Your task to perform on an android device: Empty the shopping cart on costco.com. Add usb-c to usb-a to the cart on costco.com, then select checkout. Image 0: 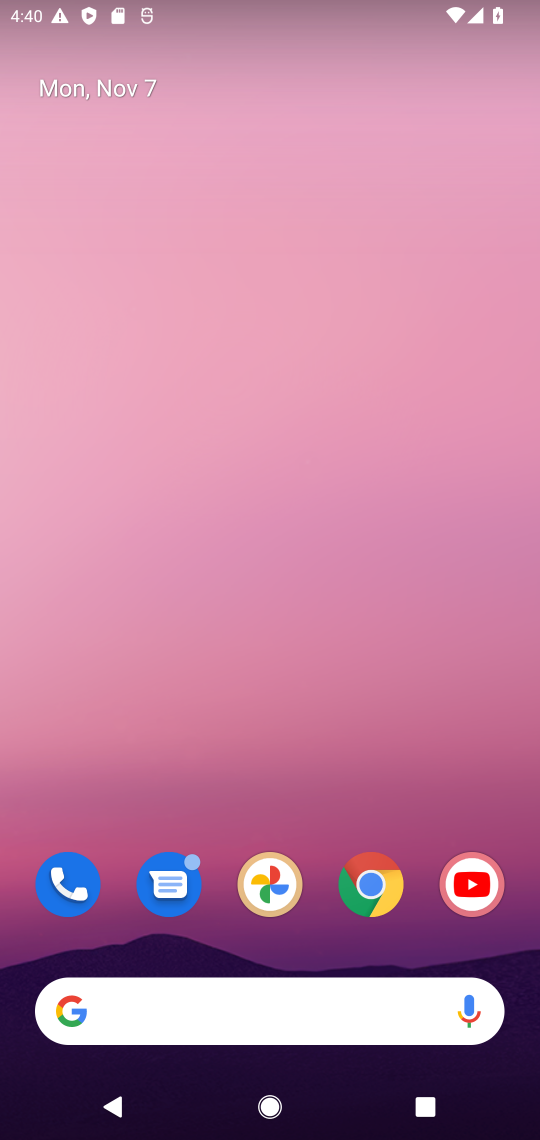
Step 0: drag from (304, 886) to (271, 164)
Your task to perform on an android device: Empty the shopping cart on costco.com. Add usb-c to usb-a to the cart on costco.com, then select checkout. Image 1: 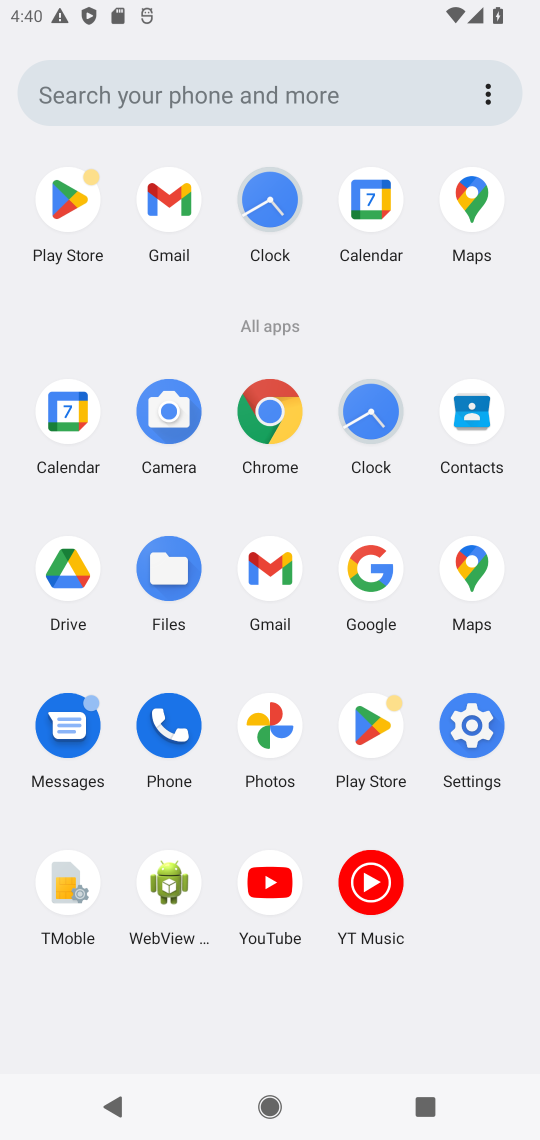
Step 1: click (268, 415)
Your task to perform on an android device: Empty the shopping cart on costco.com. Add usb-c to usb-a to the cart on costco.com, then select checkout. Image 2: 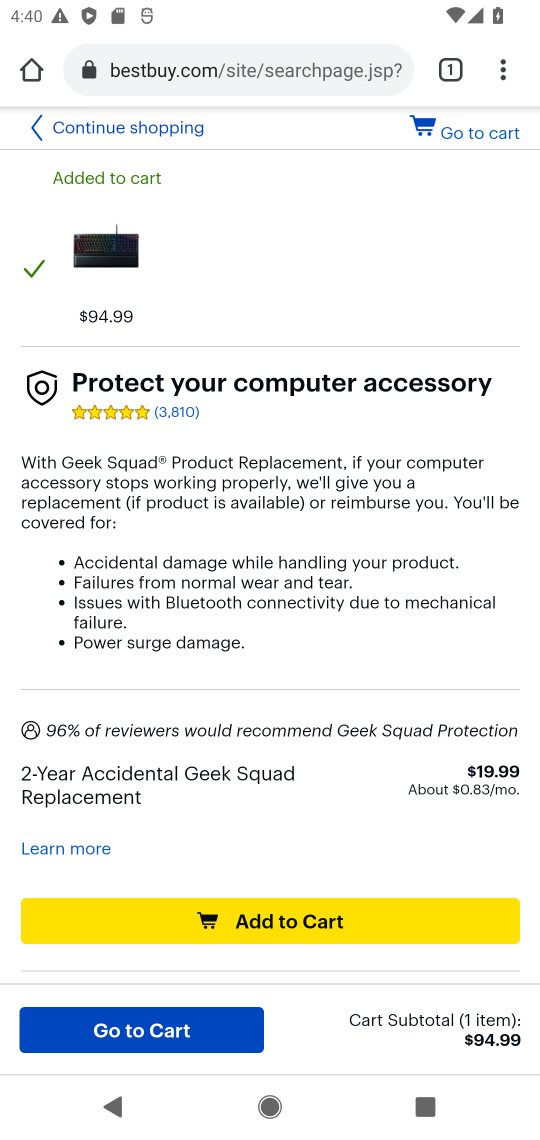
Step 2: click (267, 65)
Your task to perform on an android device: Empty the shopping cart on costco.com. Add usb-c to usb-a to the cart on costco.com, then select checkout. Image 3: 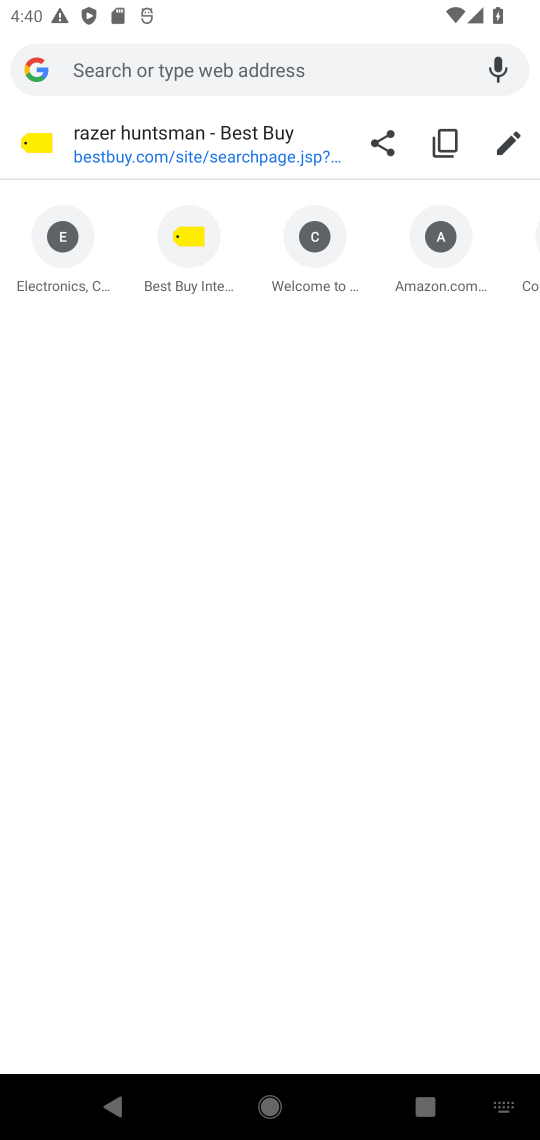
Step 3: type "costco.com"
Your task to perform on an android device: Empty the shopping cart on costco.com. Add usb-c to usb-a to the cart on costco.com, then select checkout. Image 4: 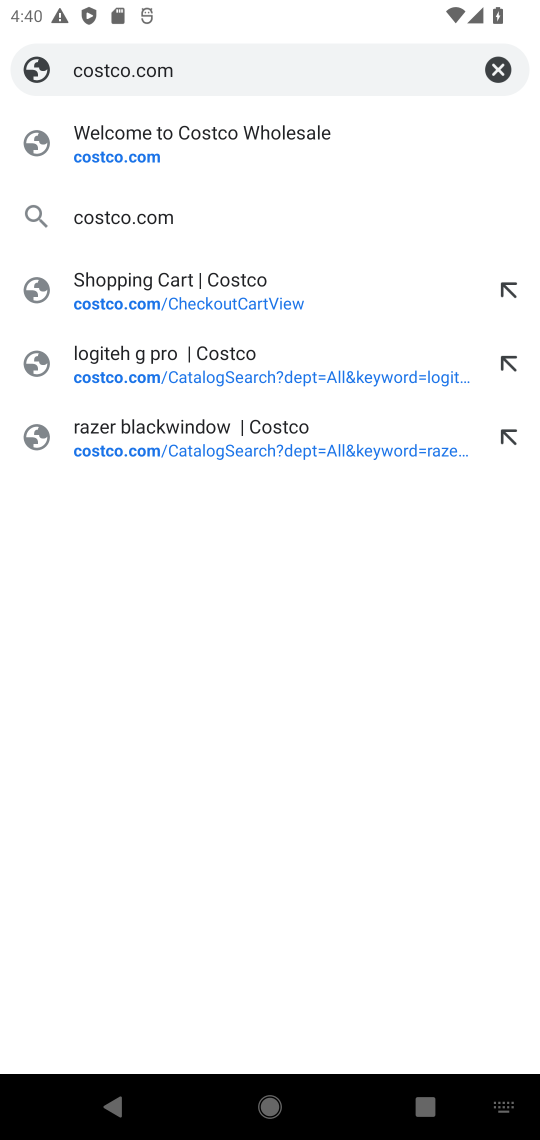
Step 4: press enter
Your task to perform on an android device: Empty the shopping cart on costco.com. Add usb-c to usb-a to the cart on costco.com, then select checkout. Image 5: 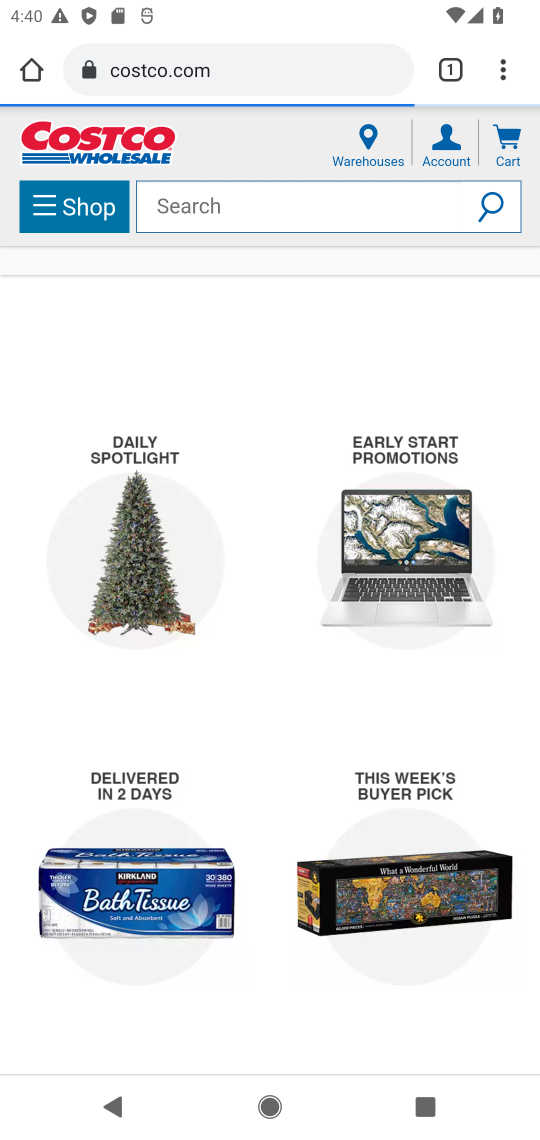
Step 5: click (510, 147)
Your task to perform on an android device: Empty the shopping cart on costco.com. Add usb-c to usb-a to the cart on costco.com, then select checkout. Image 6: 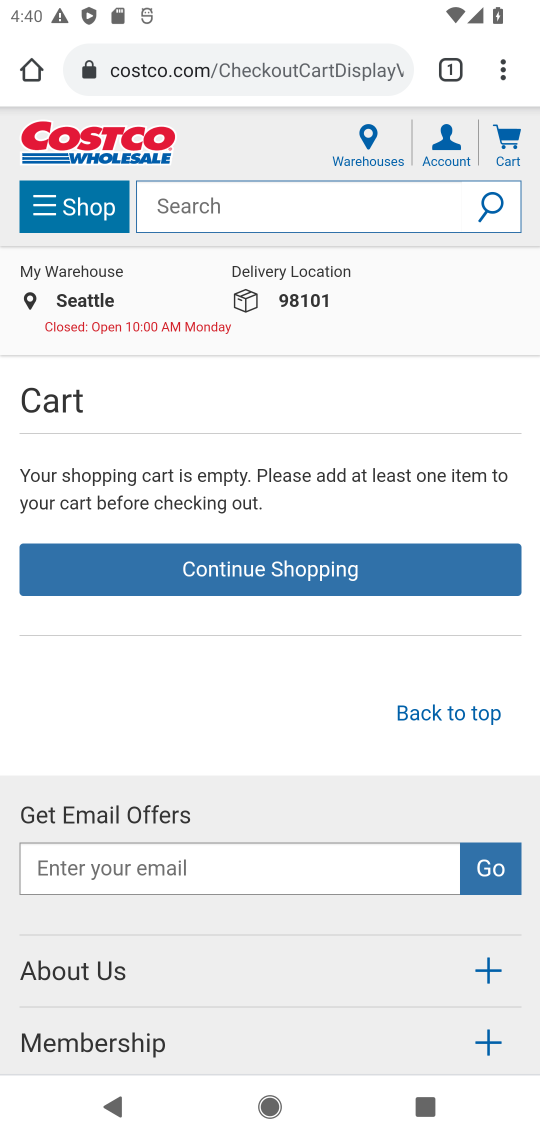
Step 6: click (248, 204)
Your task to perform on an android device: Empty the shopping cart on costco.com. Add usb-c to usb-a to the cart on costco.com, then select checkout. Image 7: 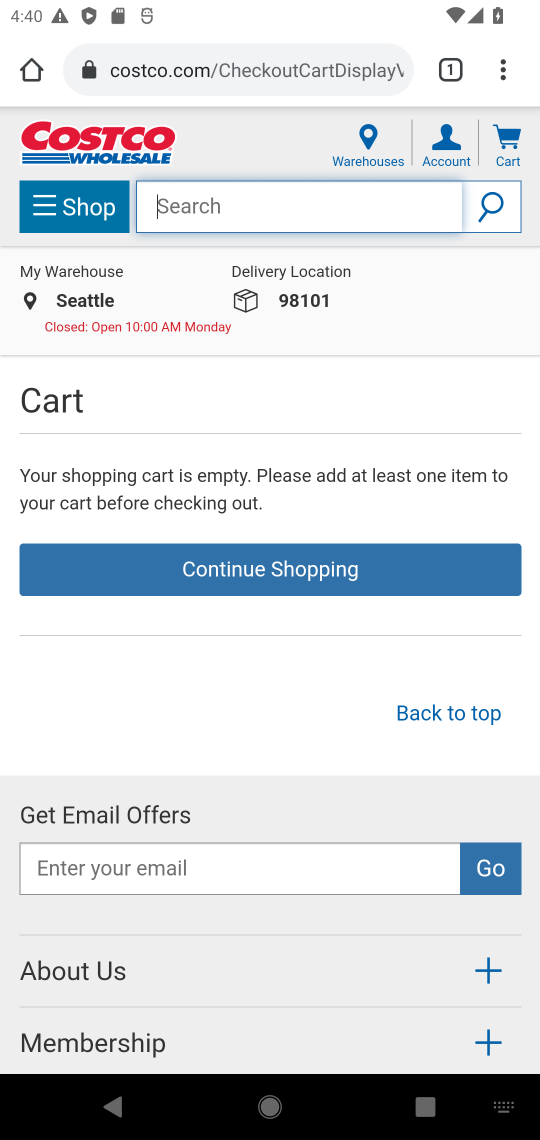
Step 7: type "usb-c to usb-a"
Your task to perform on an android device: Empty the shopping cart on costco.com. Add usb-c to usb-a to the cart on costco.com, then select checkout. Image 8: 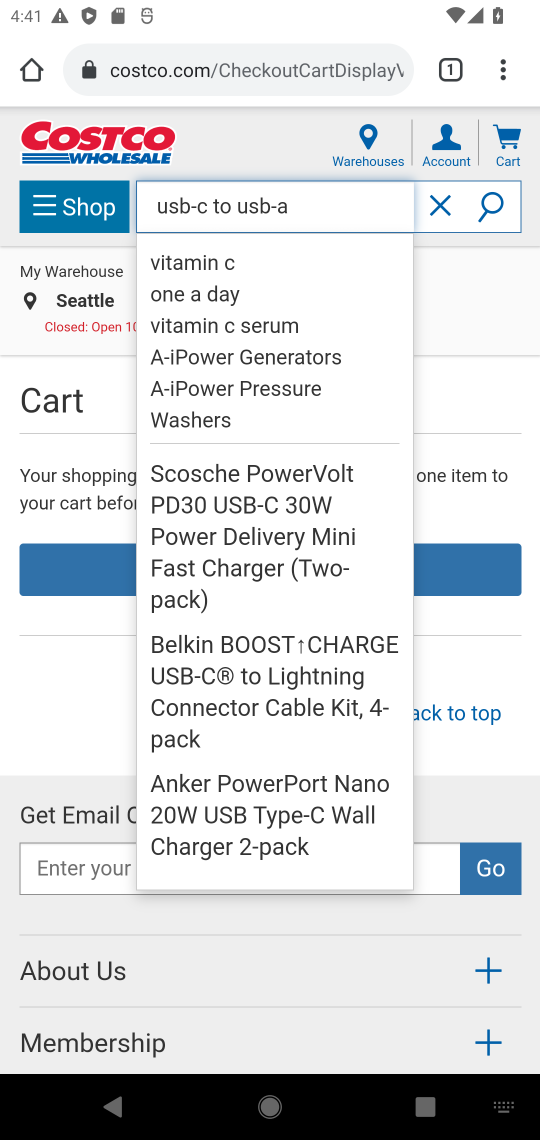
Step 8: press enter
Your task to perform on an android device: Empty the shopping cart on costco.com. Add usb-c to usb-a to the cart on costco.com, then select checkout. Image 9: 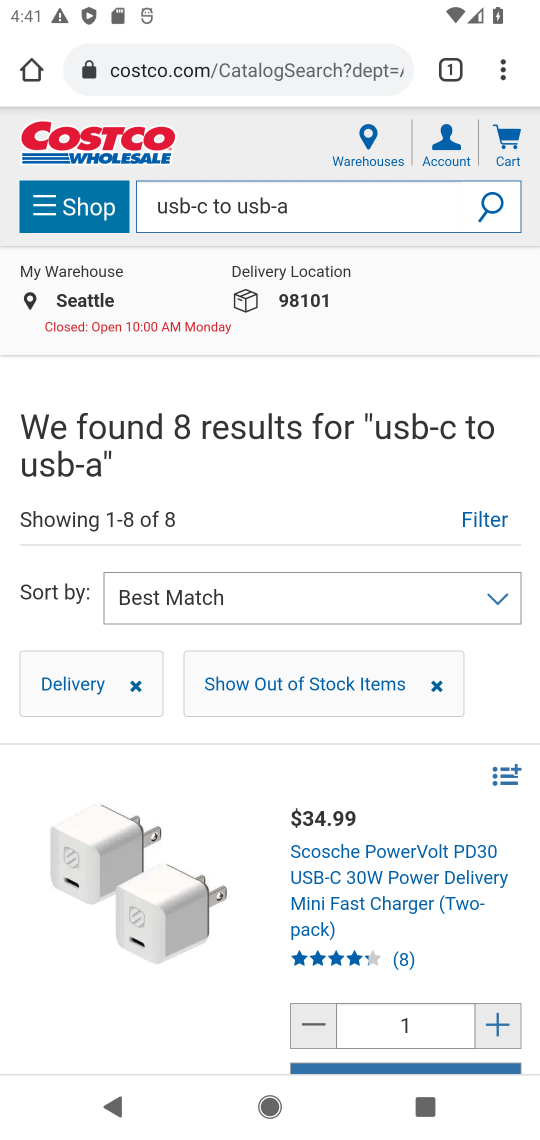
Step 9: drag from (408, 820) to (385, 361)
Your task to perform on an android device: Empty the shopping cart on costco.com. Add usb-c to usb-a to the cart on costco.com, then select checkout. Image 10: 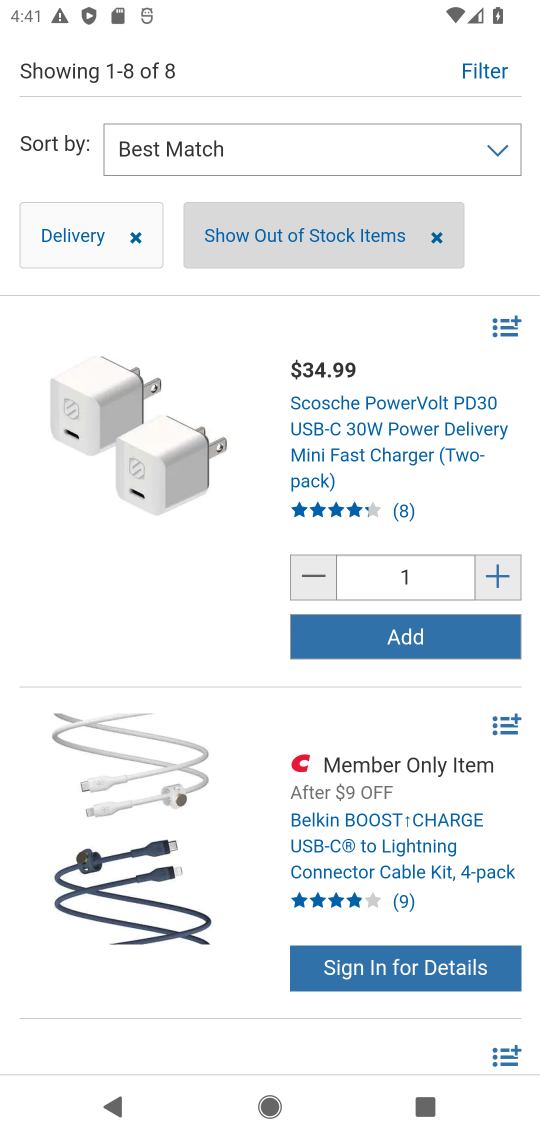
Step 10: drag from (403, 643) to (410, 428)
Your task to perform on an android device: Empty the shopping cart on costco.com. Add usb-c to usb-a to the cart on costco.com, then select checkout. Image 11: 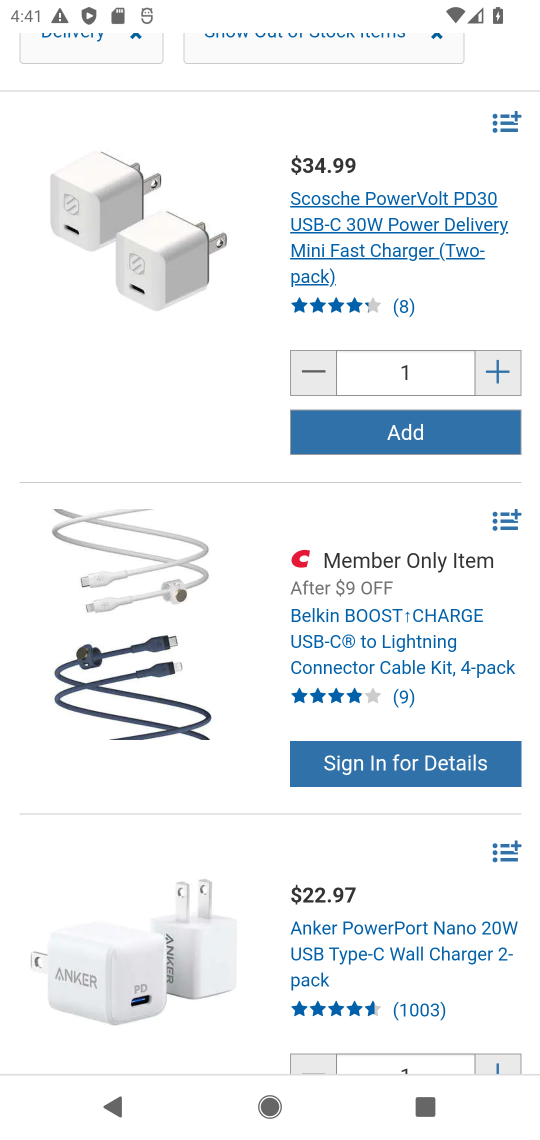
Step 11: drag from (366, 861) to (358, 525)
Your task to perform on an android device: Empty the shopping cart on costco.com. Add usb-c to usb-a to the cart on costco.com, then select checkout. Image 12: 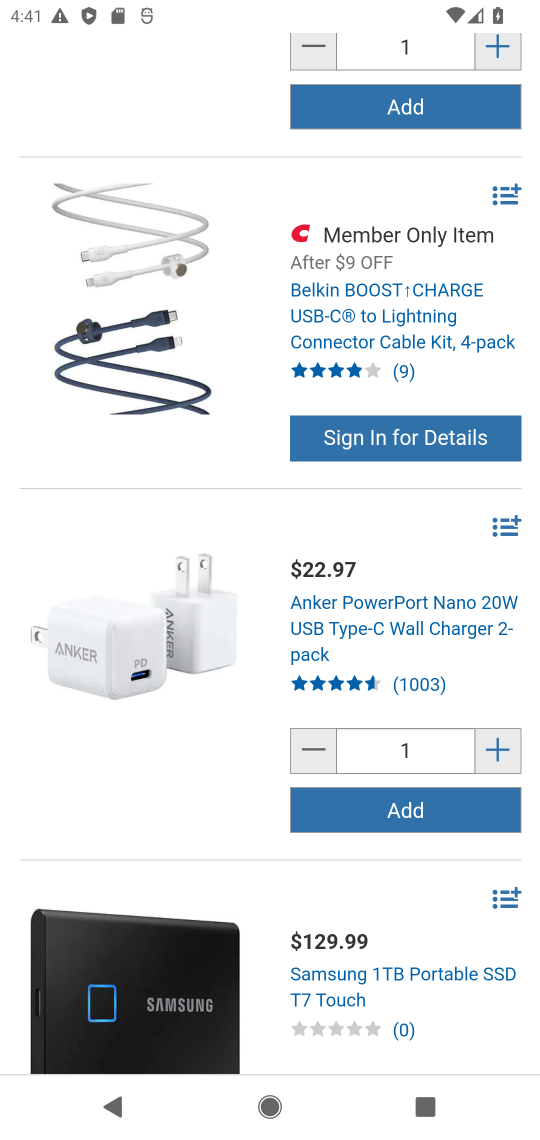
Step 12: drag from (400, 924) to (325, 1130)
Your task to perform on an android device: Empty the shopping cart on costco.com. Add usb-c to usb-a to the cart on costco.com, then select checkout. Image 13: 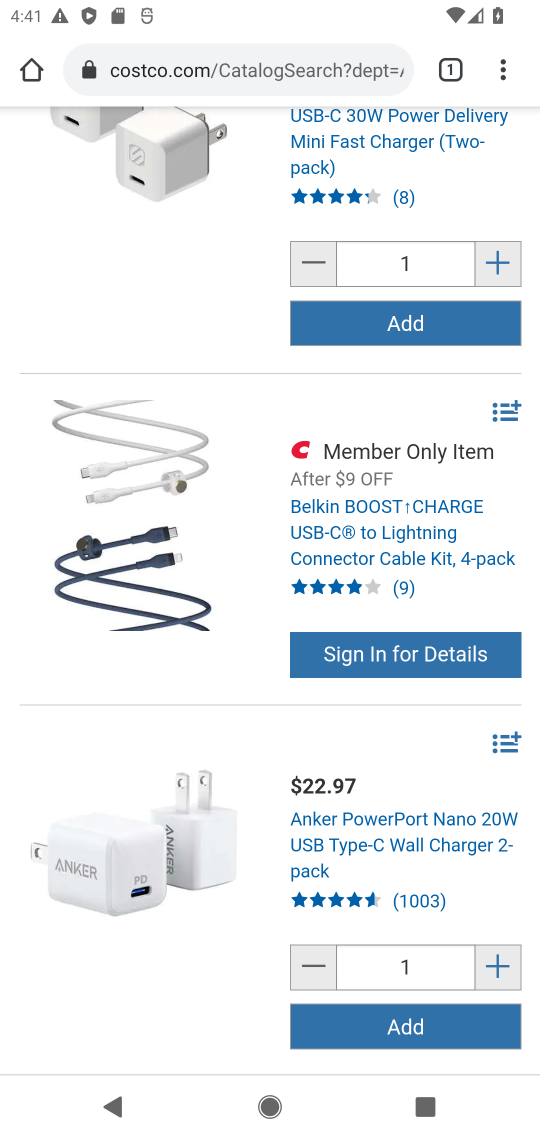
Step 13: click (350, 134)
Your task to perform on an android device: Empty the shopping cart on costco.com. Add usb-c to usb-a to the cart on costco.com, then select checkout. Image 14: 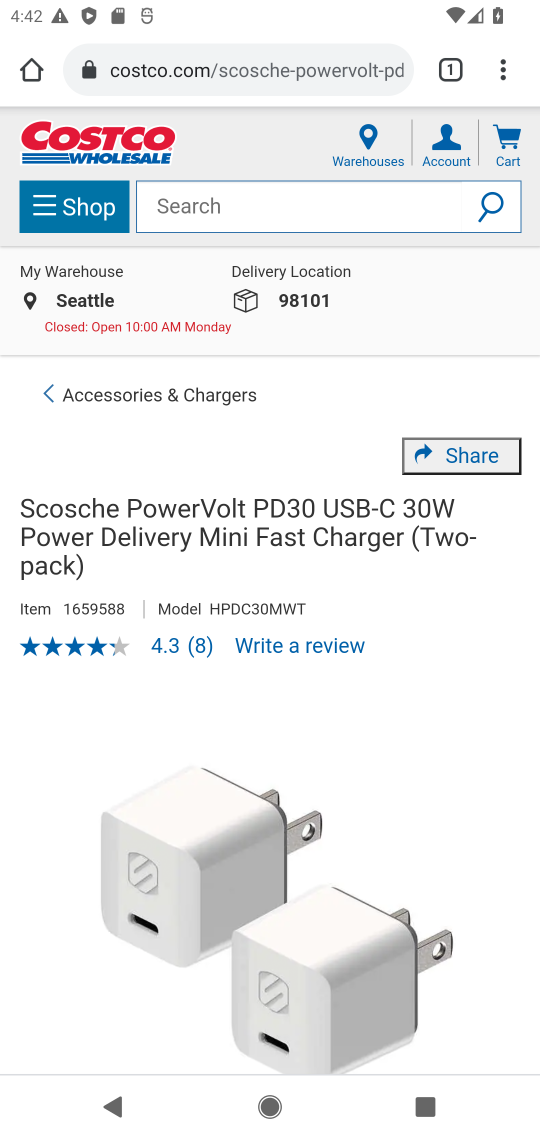
Step 14: task complete